Your task to perform on an android device: Go to Yahoo.com Image 0: 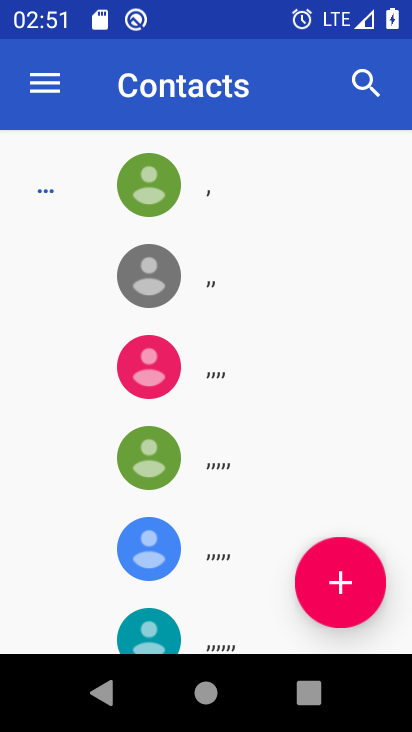
Step 0: press home button
Your task to perform on an android device: Go to Yahoo.com Image 1: 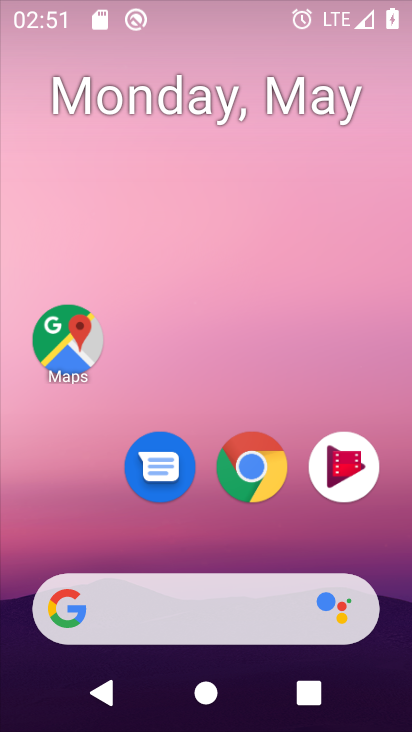
Step 1: drag from (146, 610) to (206, 246)
Your task to perform on an android device: Go to Yahoo.com Image 2: 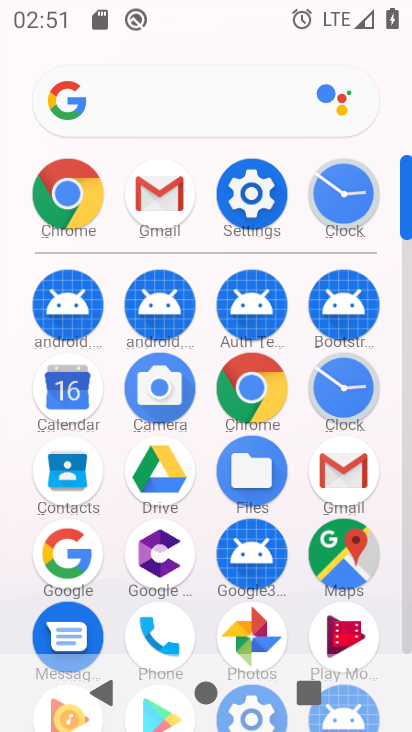
Step 2: click (85, 204)
Your task to perform on an android device: Go to Yahoo.com Image 3: 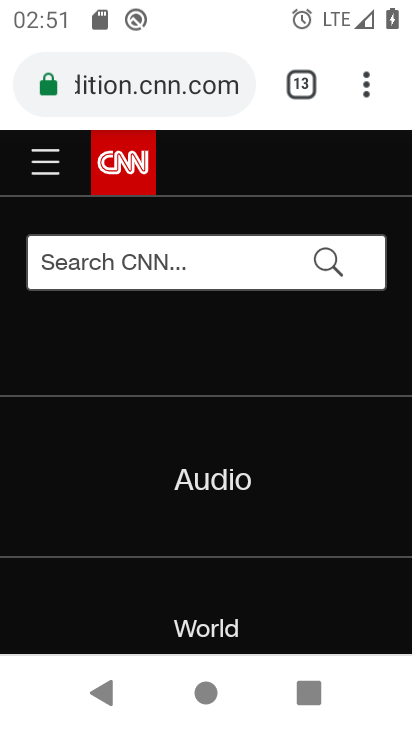
Step 3: click (353, 69)
Your task to perform on an android device: Go to Yahoo.com Image 4: 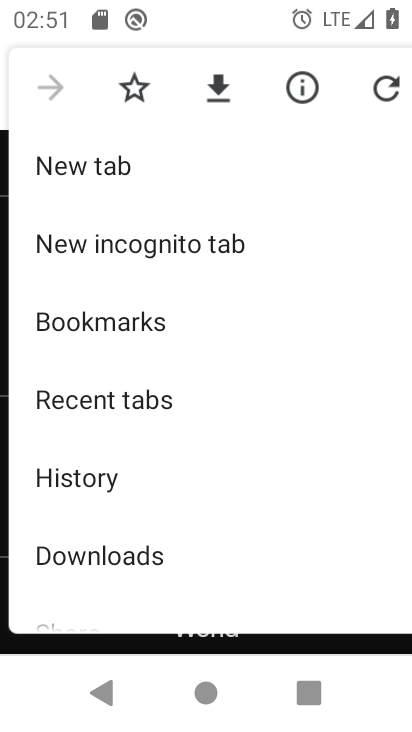
Step 4: click (102, 161)
Your task to perform on an android device: Go to Yahoo.com Image 5: 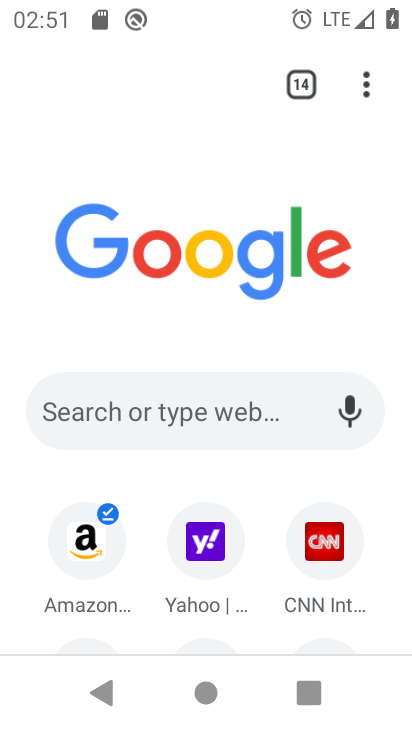
Step 5: click (198, 538)
Your task to perform on an android device: Go to Yahoo.com Image 6: 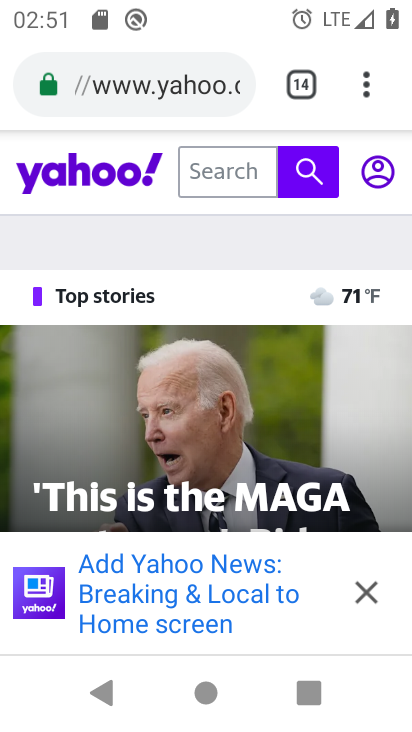
Step 6: task complete